Your task to perform on an android device: Do I have any events today? Image 0: 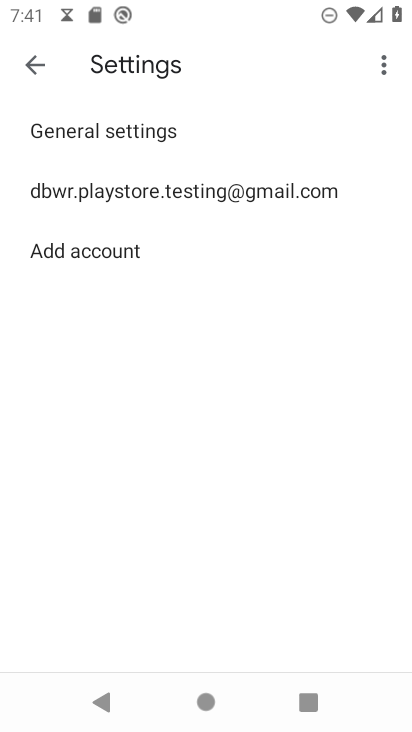
Step 0: press home button
Your task to perform on an android device: Do I have any events today? Image 1: 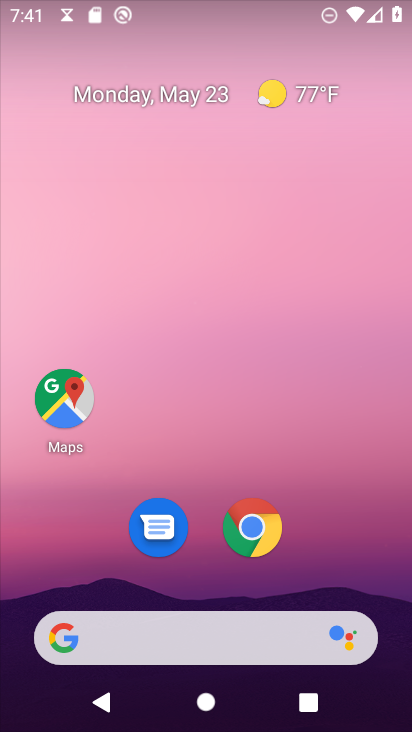
Step 1: drag from (254, 634) to (229, 241)
Your task to perform on an android device: Do I have any events today? Image 2: 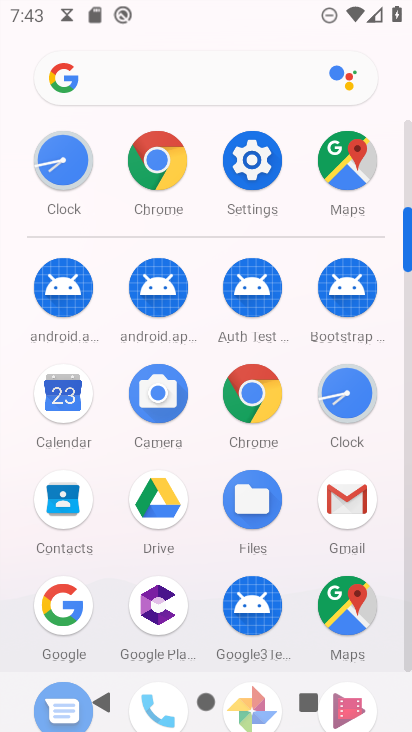
Step 2: click (67, 403)
Your task to perform on an android device: Do I have any events today? Image 3: 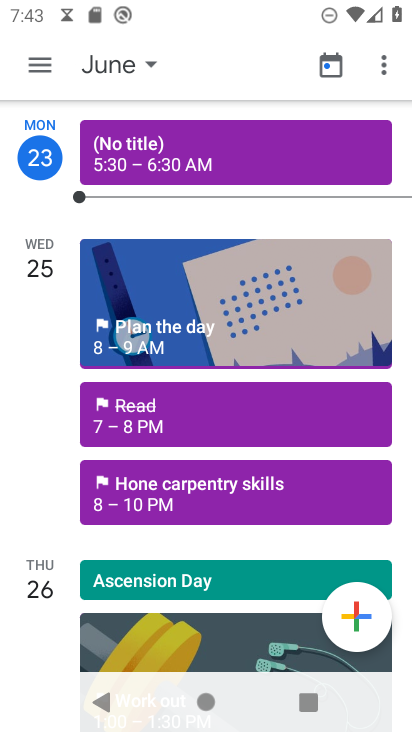
Step 3: click (45, 51)
Your task to perform on an android device: Do I have any events today? Image 4: 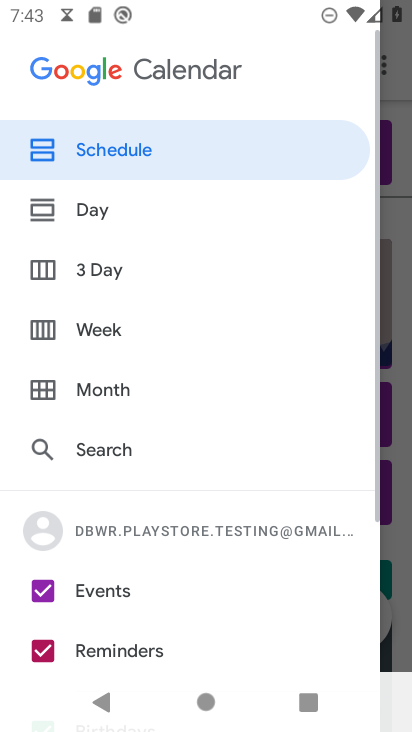
Step 4: click (150, 391)
Your task to perform on an android device: Do I have any events today? Image 5: 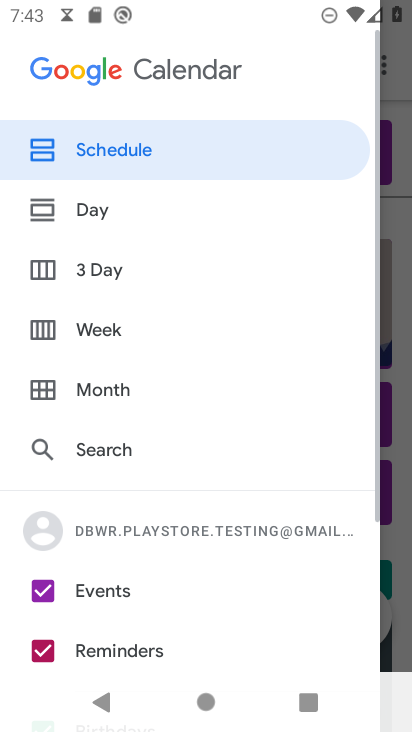
Step 5: click (97, 387)
Your task to perform on an android device: Do I have any events today? Image 6: 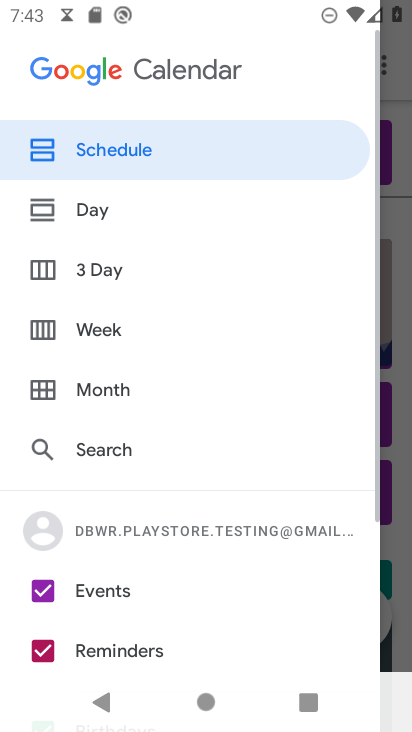
Step 6: click (112, 374)
Your task to perform on an android device: Do I have any events today? Image 7: 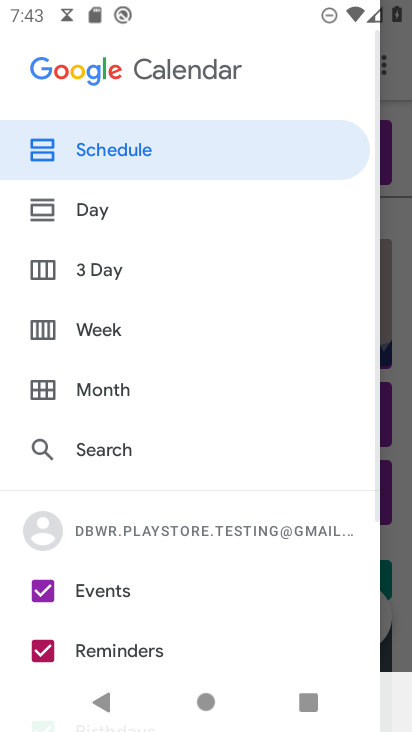
Step 7: click (147, 391)
Your task to perform on an android device: Do I have any events today? Image 8: 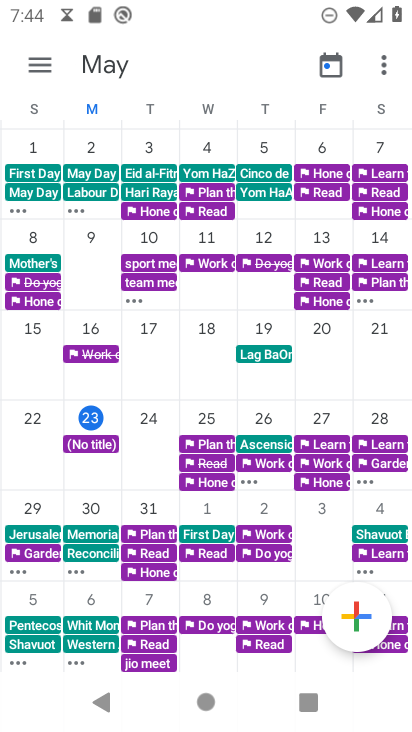
Step 8: click (102, 421)
Your task to perform on an android device: Do I have any events today? Image 9: 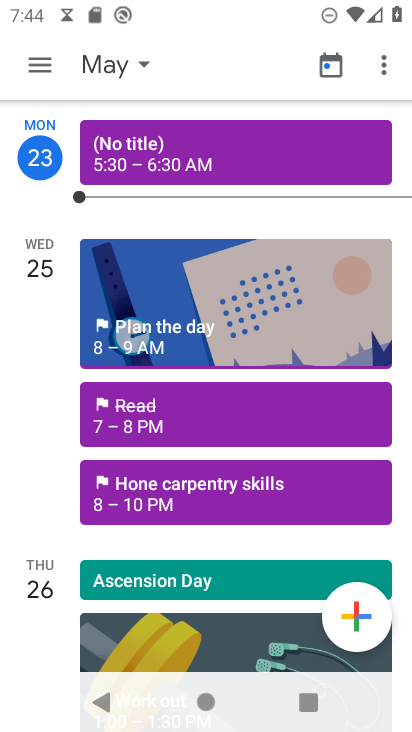
Step 9: task complete